Your task to perform on an android device: open a bookmark in the chrome app Image 0: 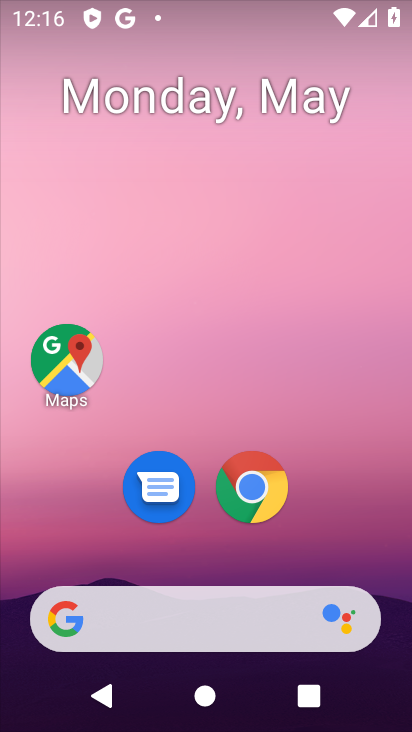
Step 0: click (252, 488)
Your task to perform on an android device: open a bookmark in the chrome app Image 1: 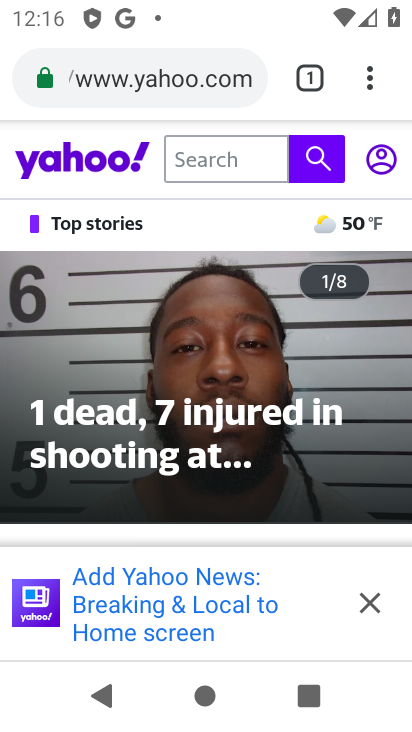
Step 1: click (372, 78)
Your task to perform on an android device: open a bookmark in the chrome app Image 2: 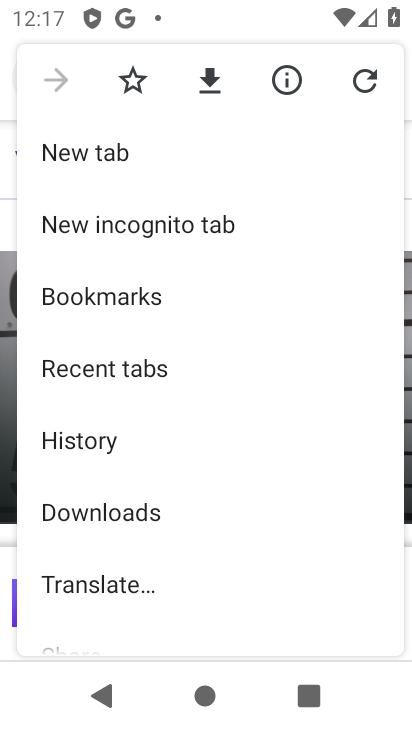
Step 2: click (151, 312)
Your task to perform on an android device: open a bookmark in the chrome app Image 3: 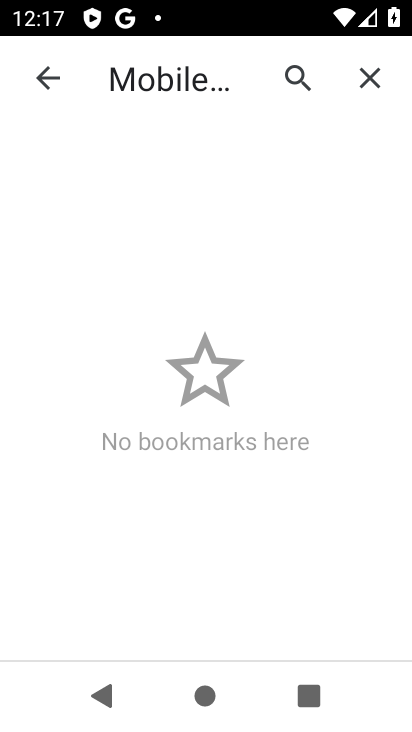
Step 3: task complete